Your task to perform on an android device: What's on my calendar tomorrow? Image 0: 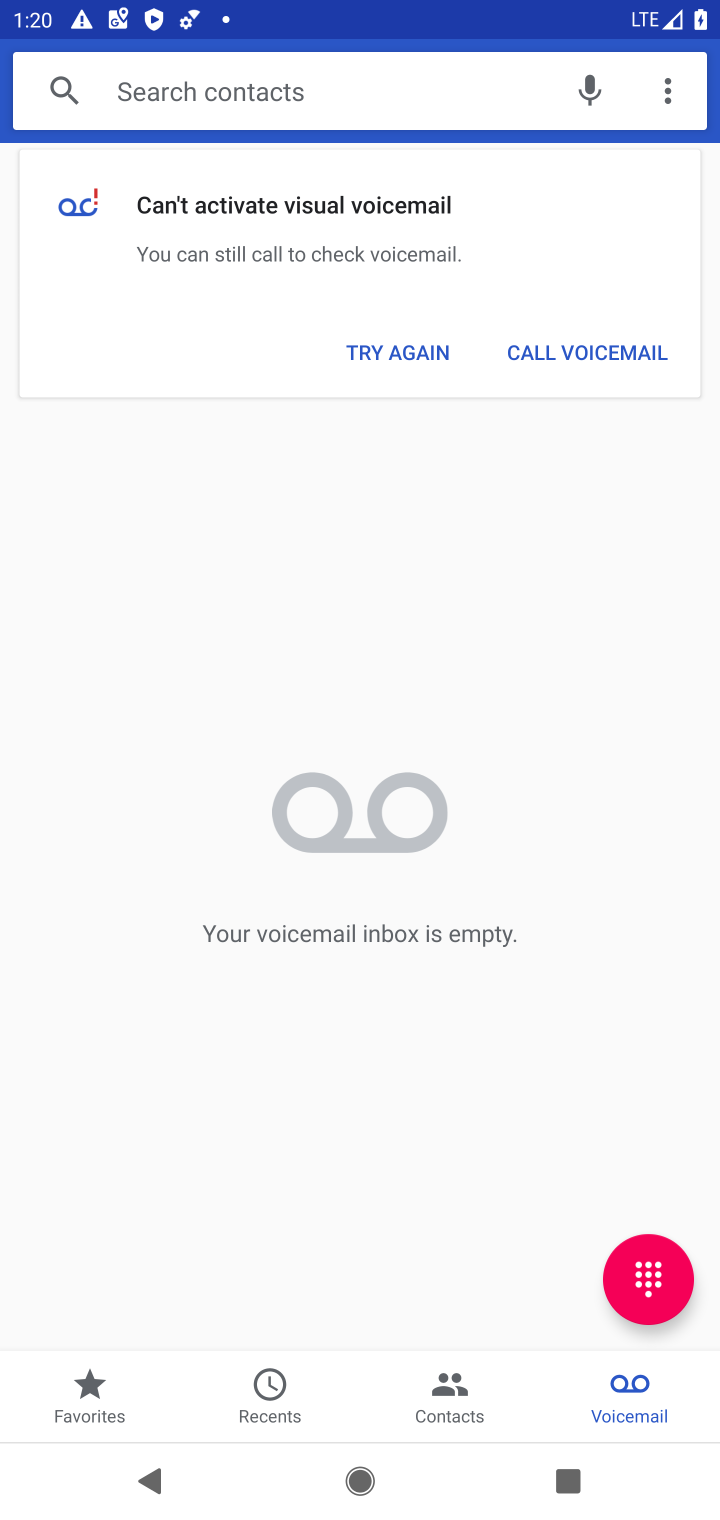
Step 0: press home button
Your task to perform on an android device: What's on my calendar tomorrow? Image 1: 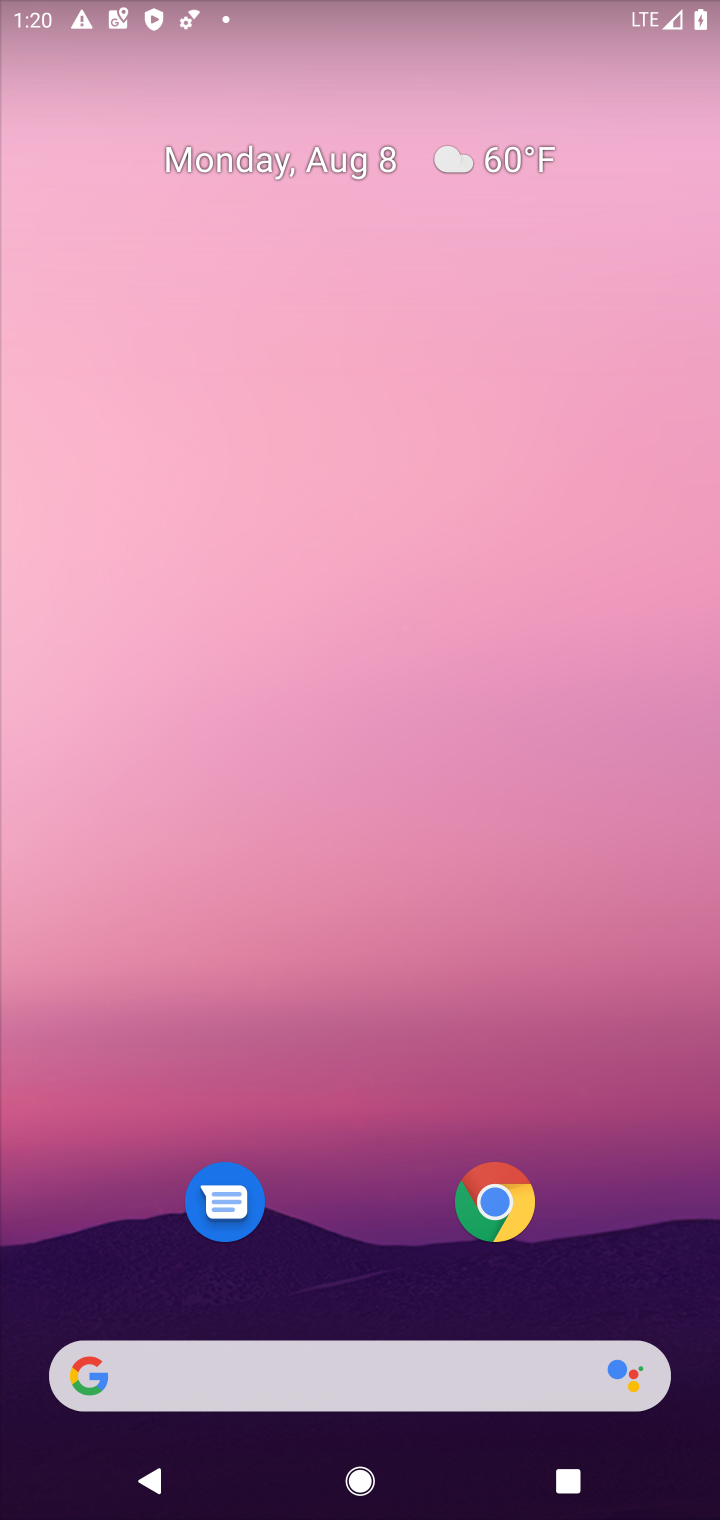
Step 1: drag from (335, 1256) to (344, 386)
Your task to perform on an android device: What's on my calendar tomorrow? Image 2: 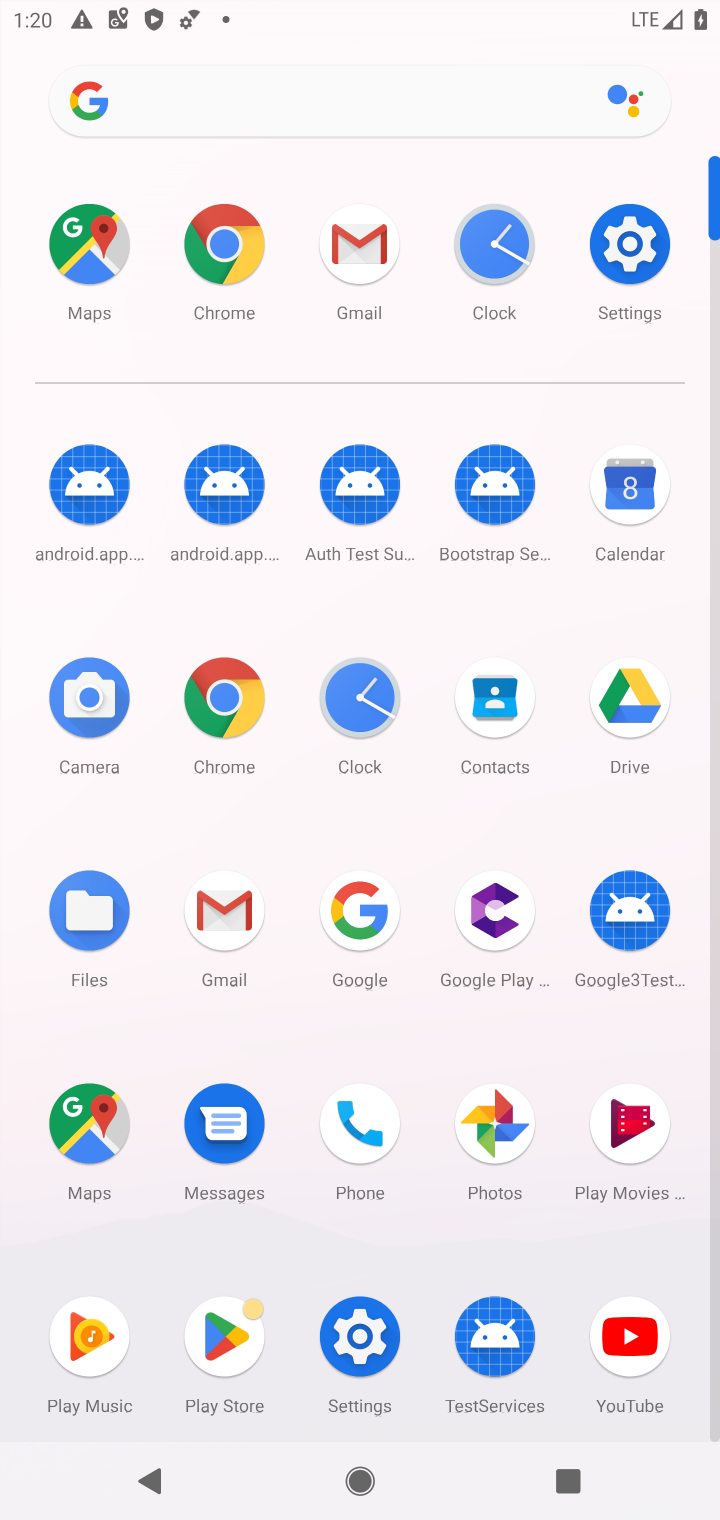
Step 2: click (614, 545)
Your task to perform on an android device: What's on my calendar tomorrow? Image 3: 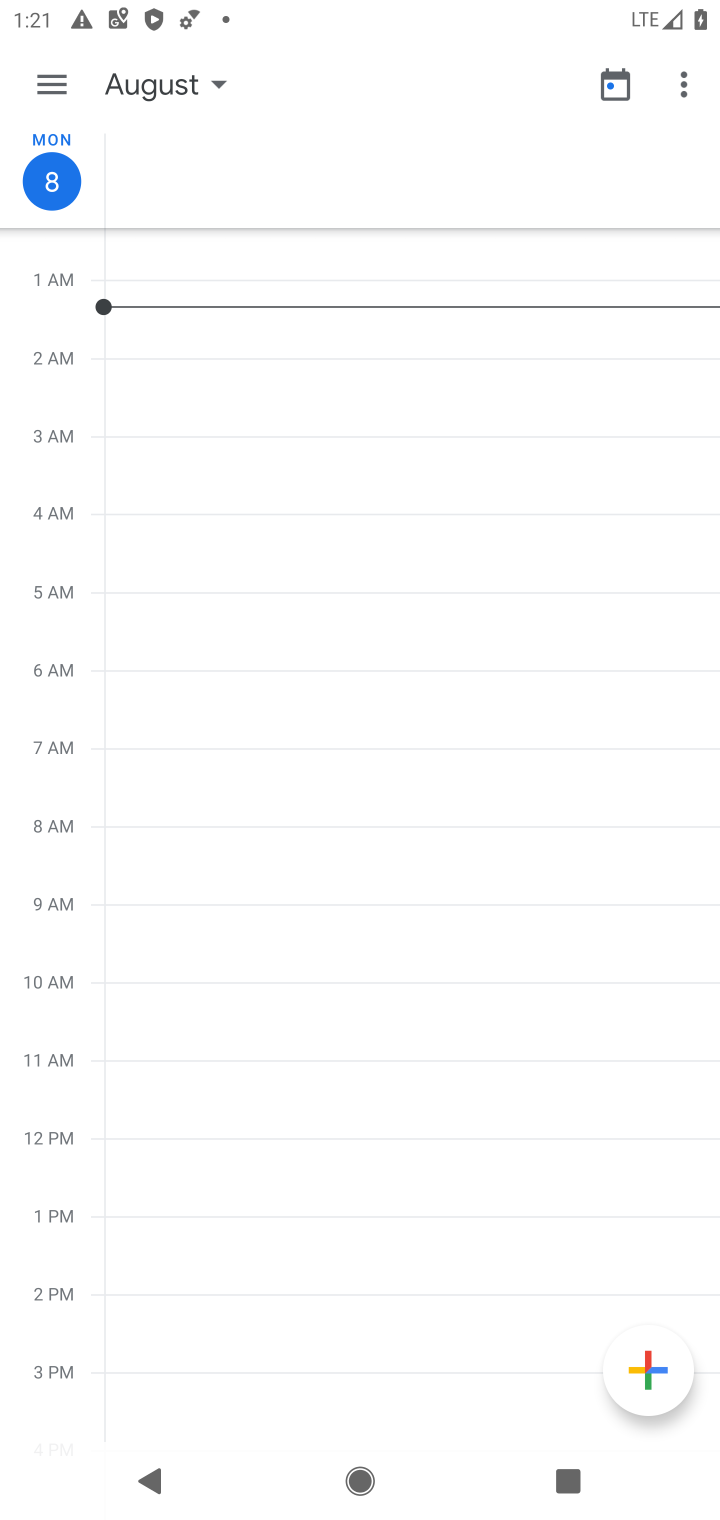
Step 3: click (148, 90)
Your task to perform on an android device: What's on my calendar tomorrow? Image 4: 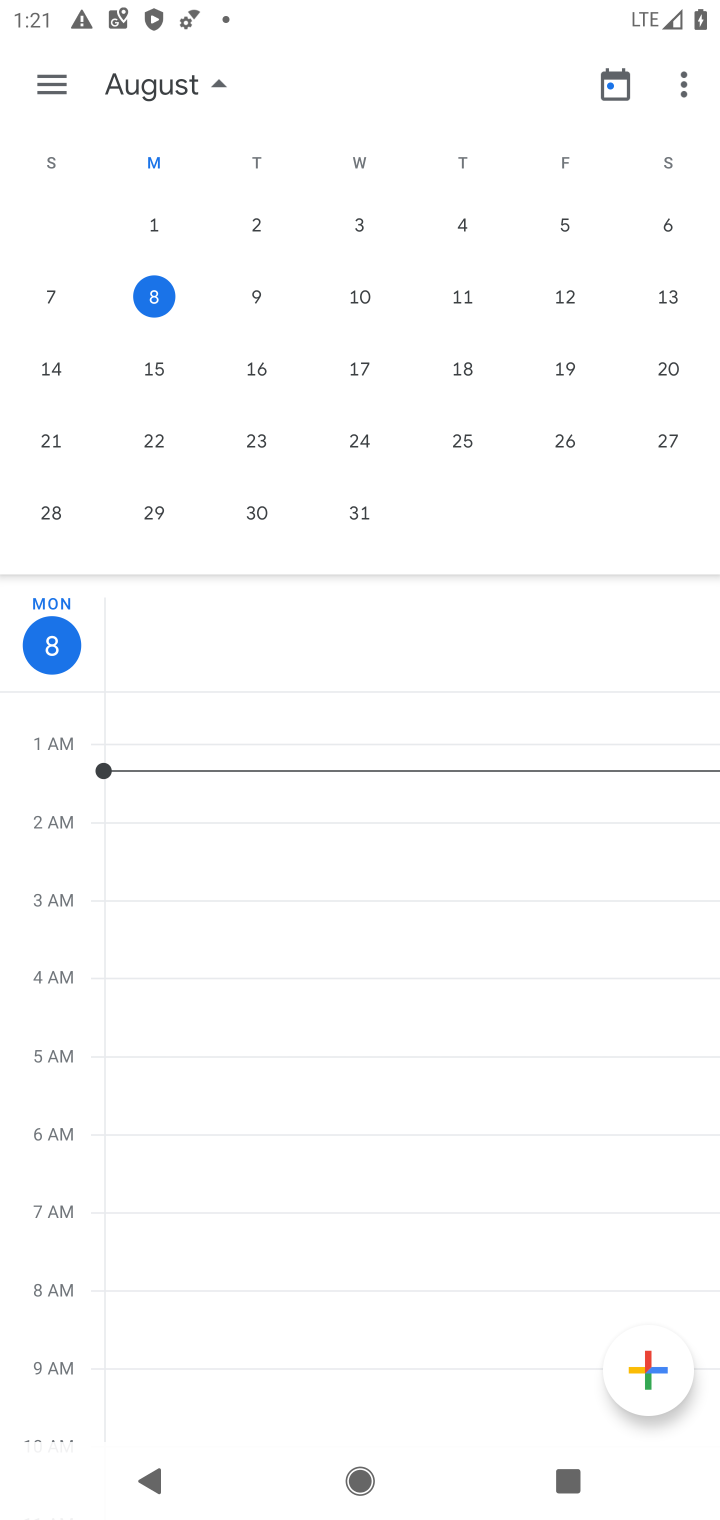
Step 4: click (269, 292)
Your task to perform on an android device: What's on my calendar tomorrow? Image 5: 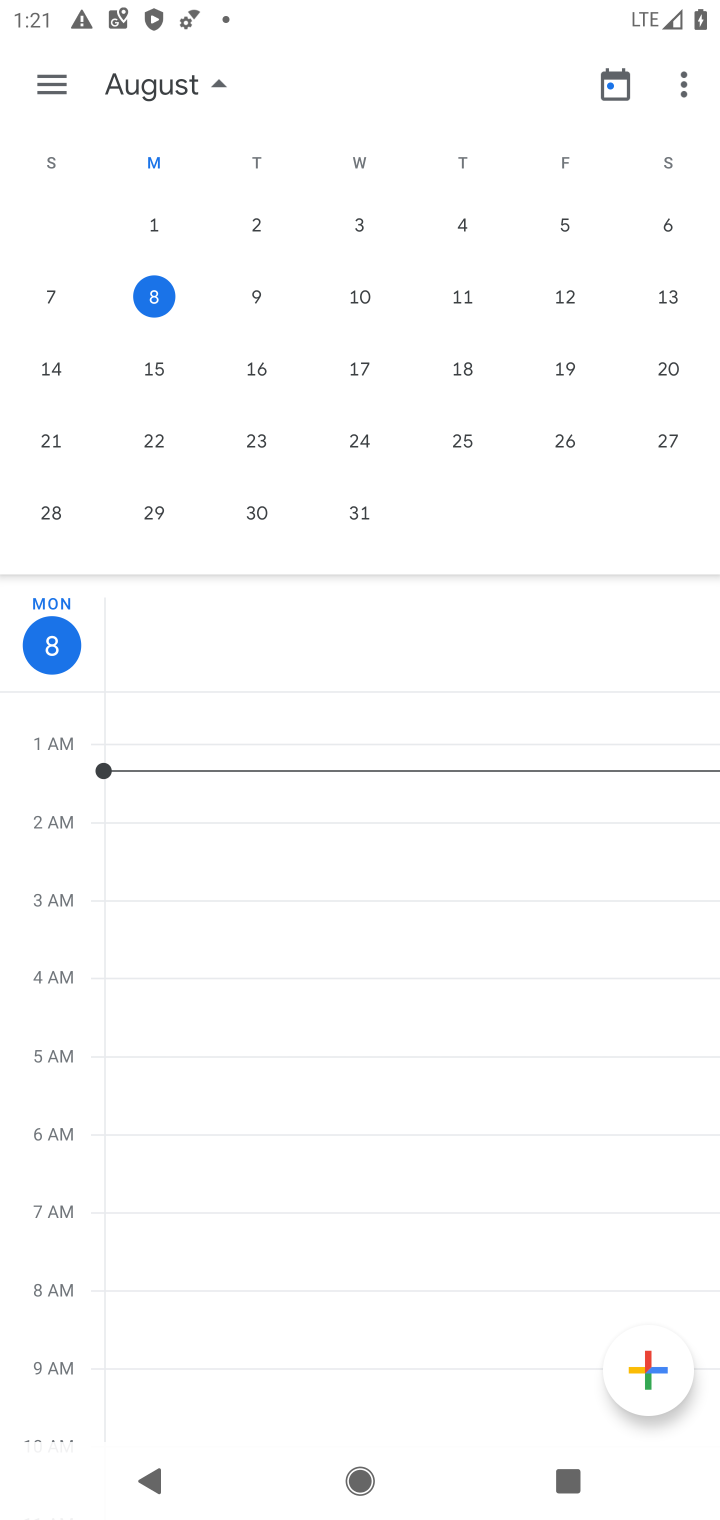
Step 5: click (269, 292)
Your task to perform on an android device: What's on my calendar tomorrow? Image 6: 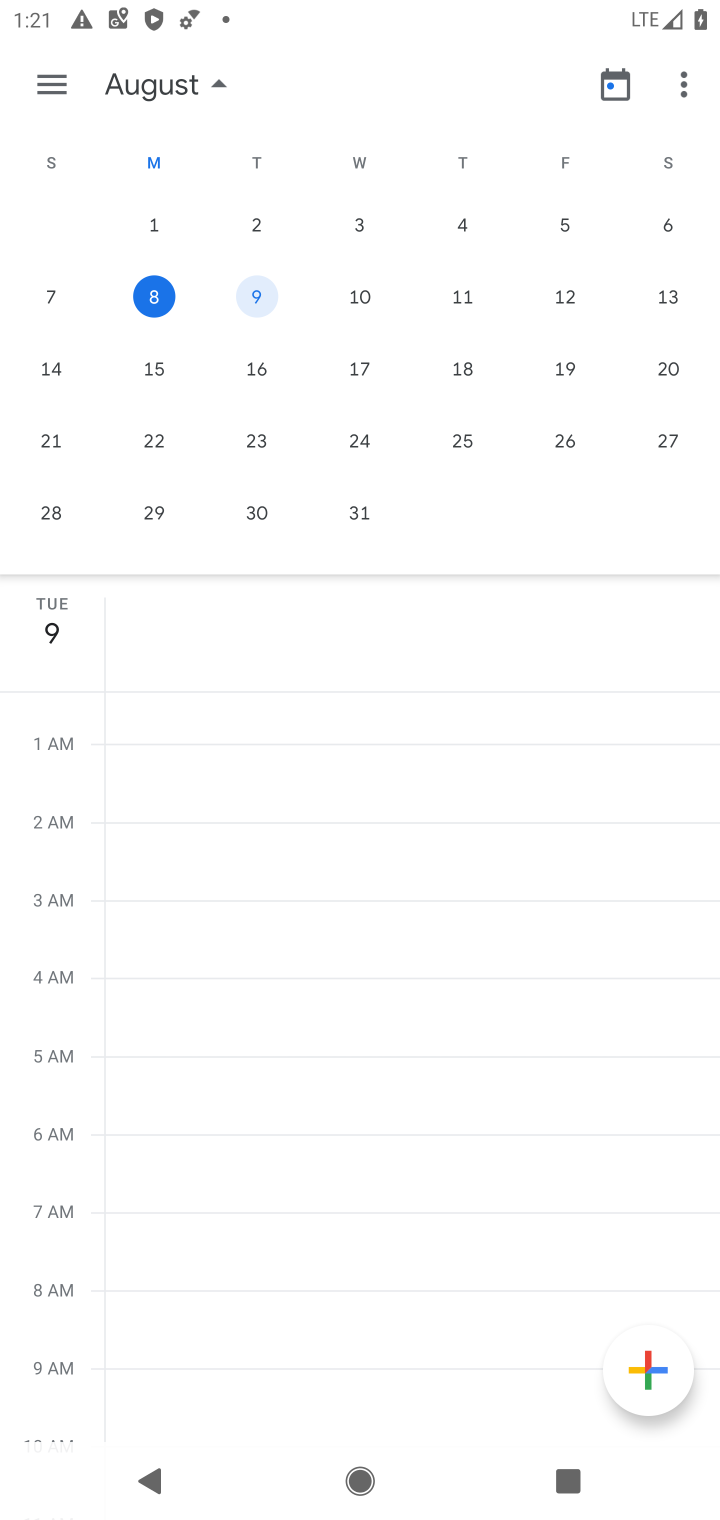
Step 6: task complete